Your task to perform on an android device: star an email in the gmail app Image 0: 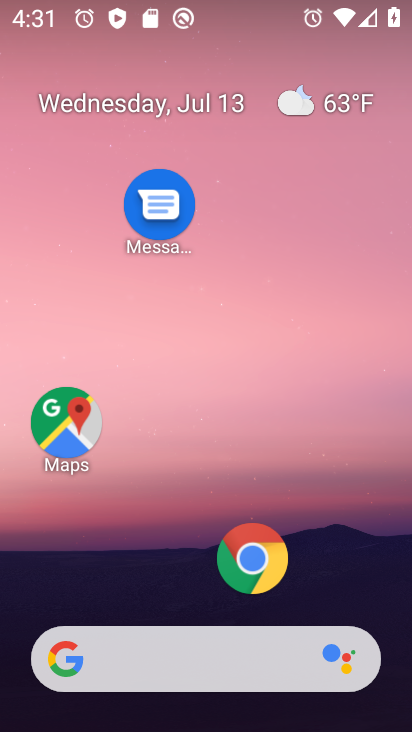
Step 0: drag from (232, 631) to (242, 183)
Your task to perform on an android device: star an email in the gmail app Image 1: 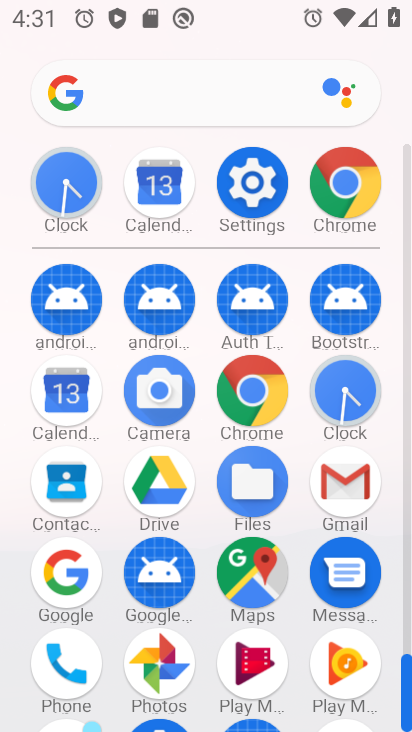
Step 1: click (349, 493)
Your task to perform on an android device: star an email in the gmail app Image 2: 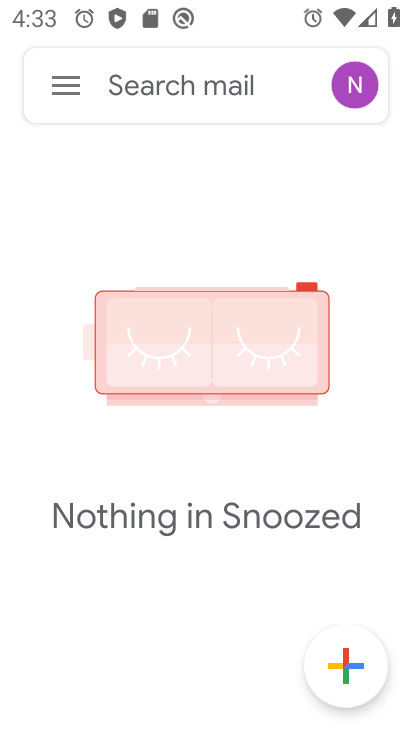
Step 2: click (66, 85)
Your task to perform on an android device: star an email in the gmail app Image 3: 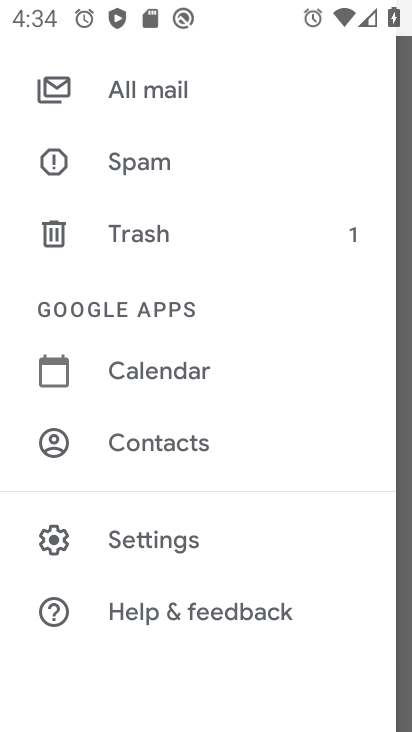
Step 3: click (122, 97)
Your task to perform on an android device: star an email in the gmail app Image 4: 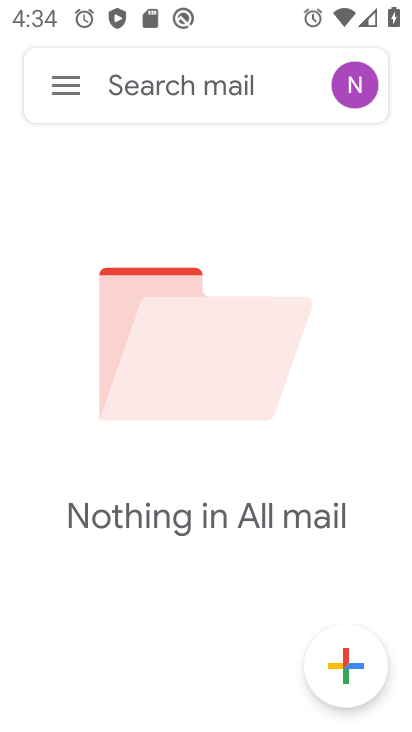
Step 4: task complete